Your task to perform on an android device: see sites visited before in the chrome app Image 0: 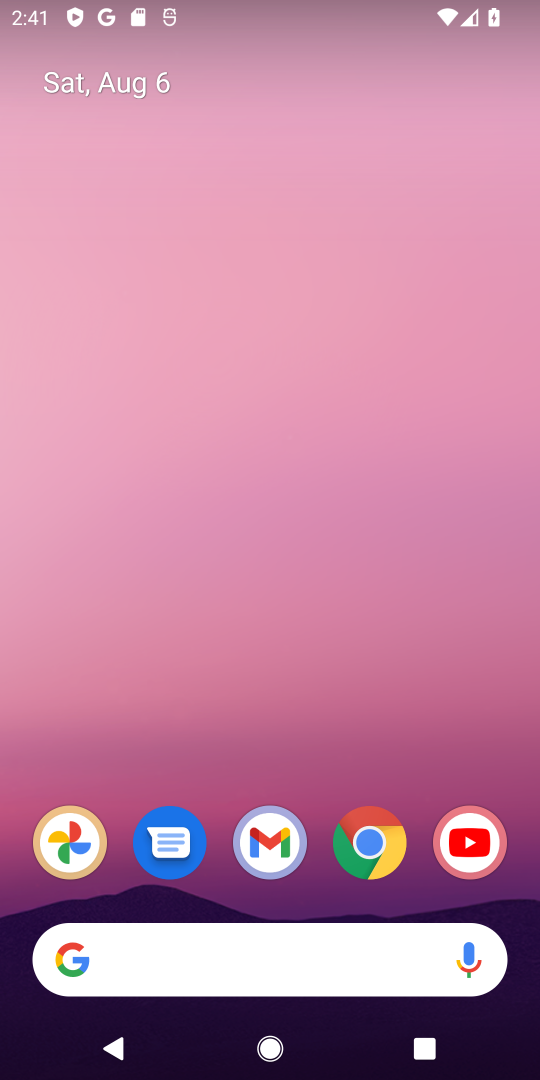
Step 0: click (361, 850)
Your task to perform on an android device: see sites visited before in the chrome app Image 1: 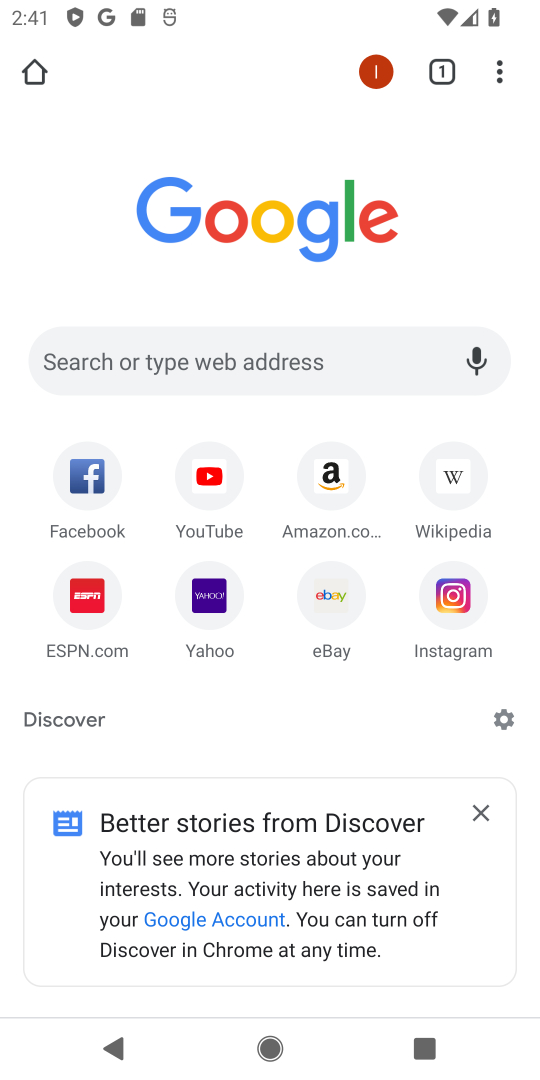
Step 1: click (504, 70)
Your task to perform on an android device: see sites visited before in the chrome app Image 2: 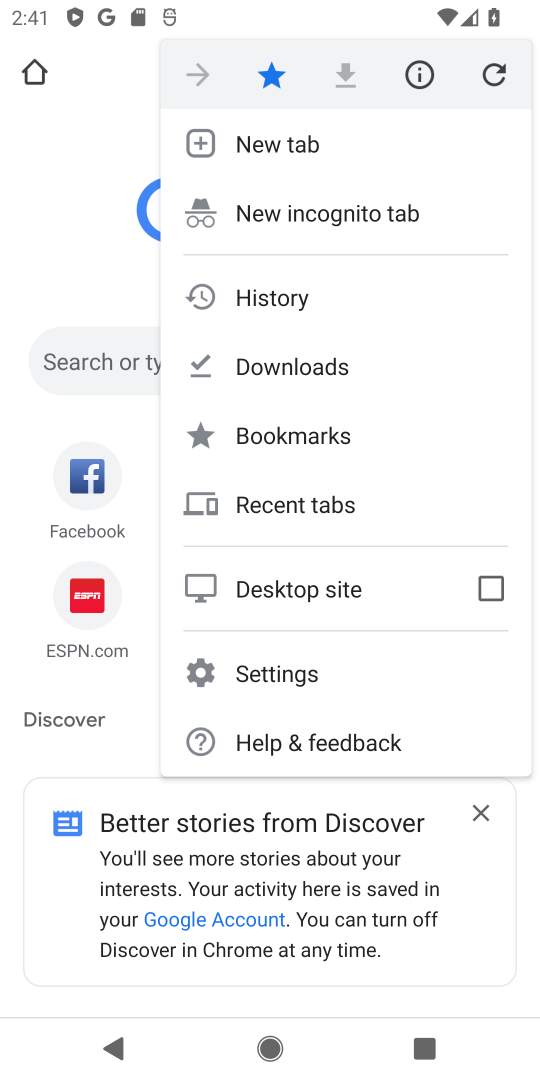
Step 2: click (294, 497)
Your task to perform on an android device: see sites visited before in the chrome app Image 3: 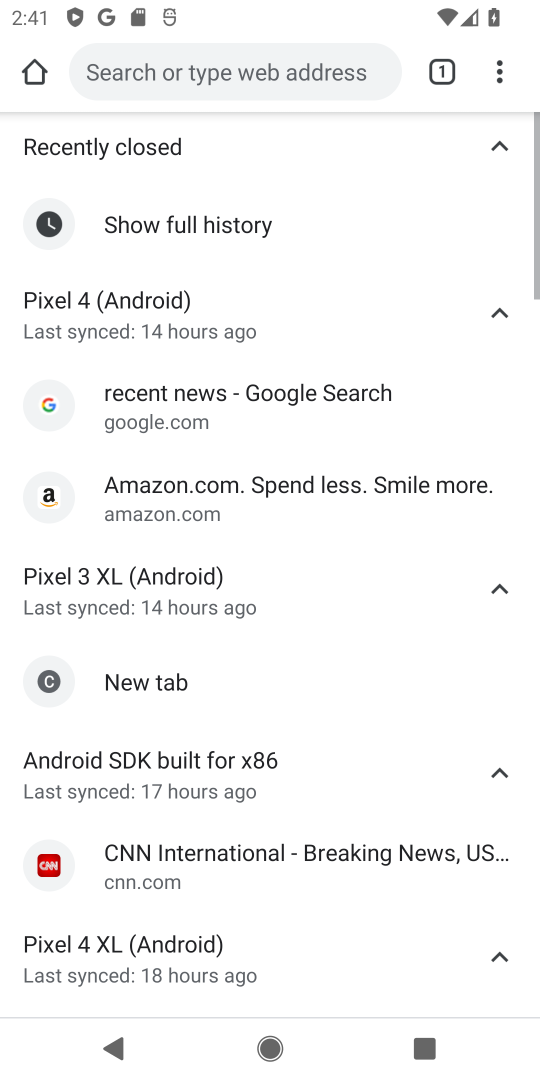
Step 3: task complete